Your task to perform on an android device: clear all cookies in the chrome app Image 0: 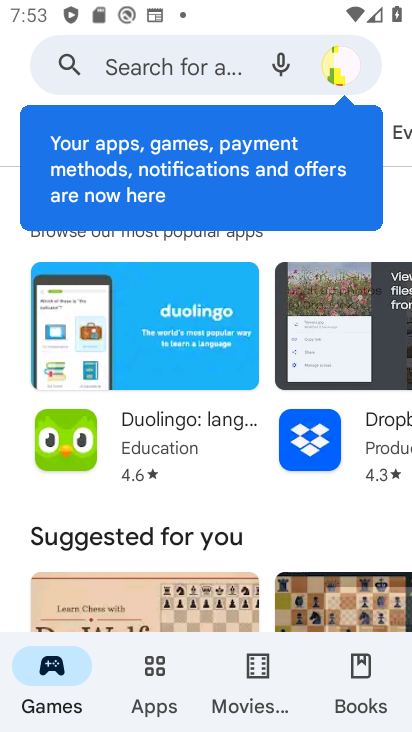
Step 0: press home button
Your task to perform on an android device: clear all cookies in the chrome app Image 1: 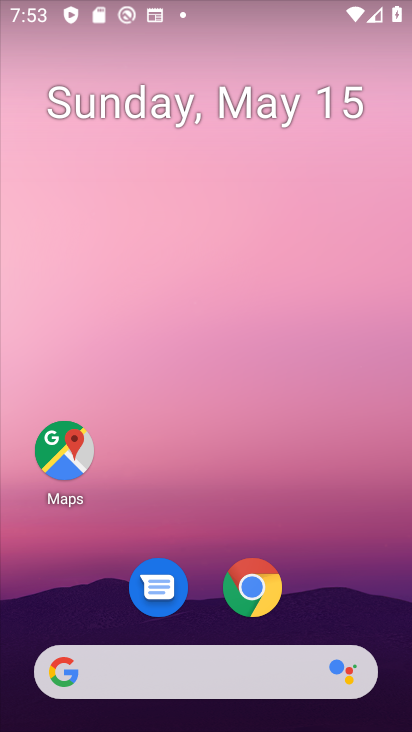
Step 1: click (254, 583)
Your task to perform on an android device: clear all cookies in the chrome app Image 2: 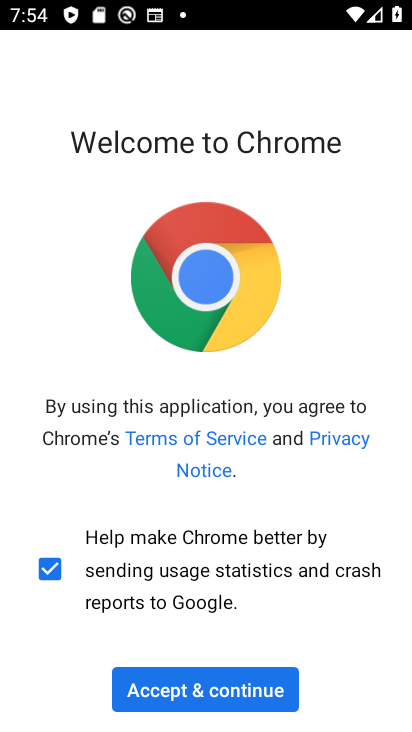
Step 2: click (167, 698)
Your task to perform on an android device: clear all cookies in the chrome app Image 3: 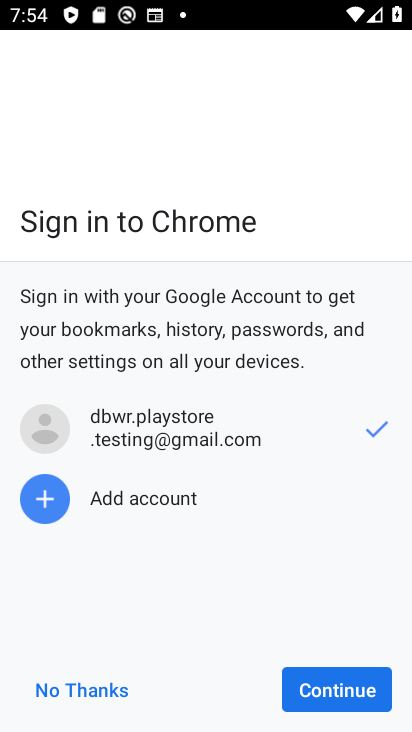
Step 3: click (352, 681)
Your task to perform on an android device: clear all cookies in the chrome app Image 4: 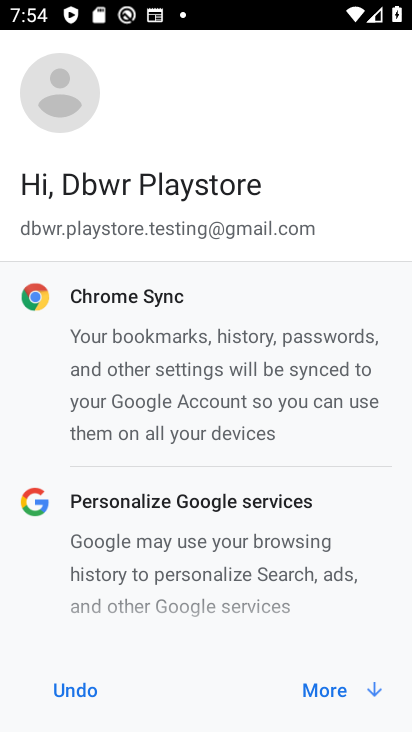
Step 4: click (312, 678)
Your task to perform on an android device: clear all cookies in the chrome app Image 5: 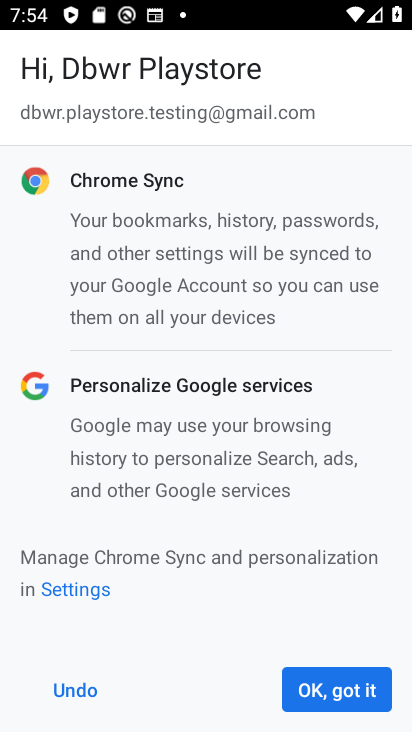
Step 5: click (322, 675)
Your task to perform on an android device: clear all cookies in the chrome app Image 6: 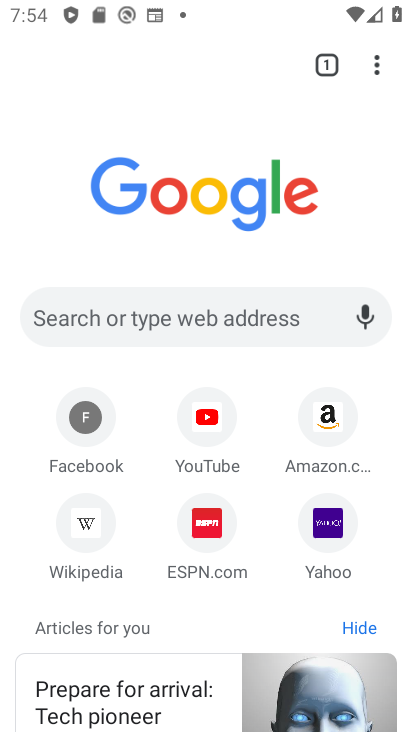
Step 6: click (378, 63)
Your task to perform on an android device: clear all cookies in the chrome app Image 7: 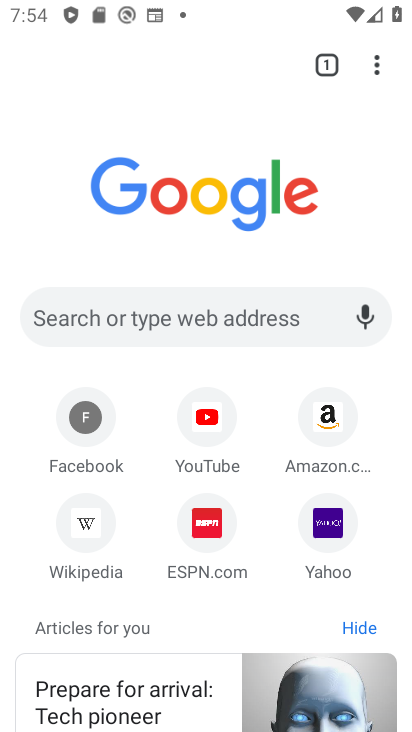
Step 7: click (377, 62)
Your task to perform on an android device: clear all cookies in the chrome app Image 8: 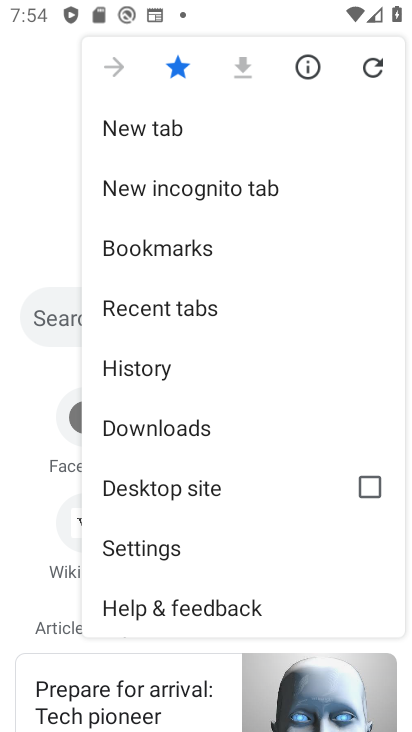
Step 8: click (167, 366)
Your task to perform on an android device: clear all cookies in the chrome app Image 9: 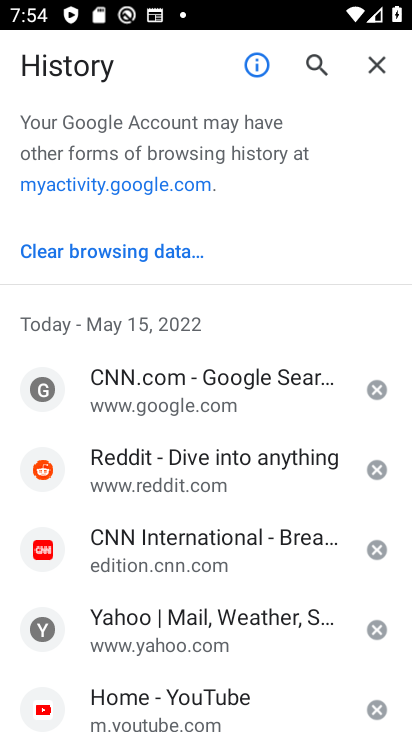
Step 9: click (130, 250)
Your task to perform on an android device: clear all cookies in the chrome app Image 10: 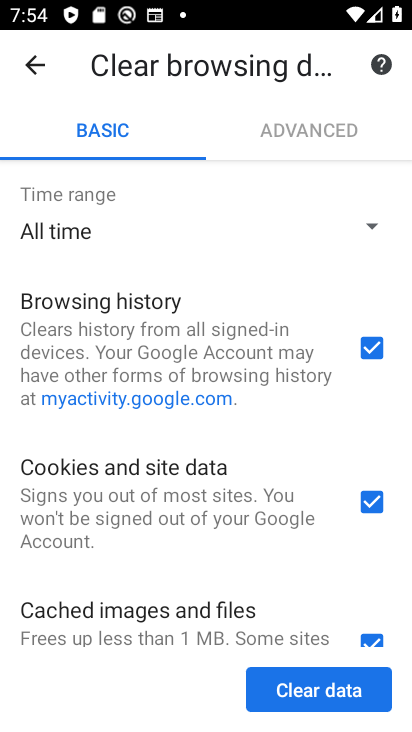
Step 10: click (375, 638)
Your task to perform on an android device: clear all cookies in the chrome app Image 11: 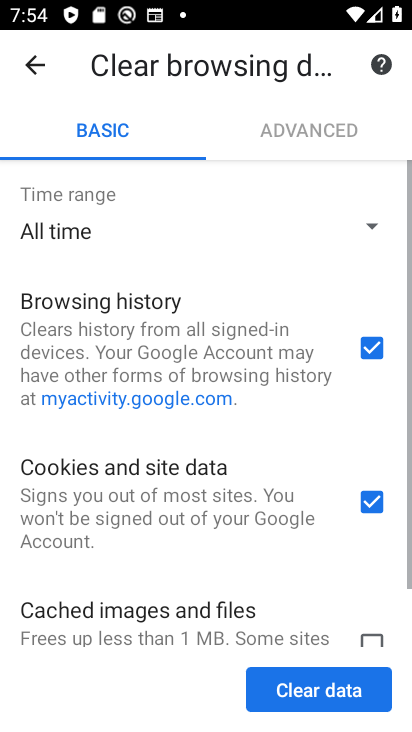
Step 11: click (374, 347)
Your task to perform on an android device: clear all cookies in the chrome app Image 12: 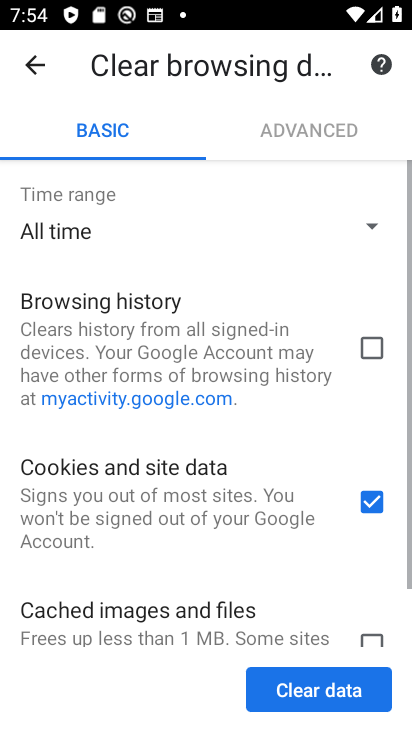
Step 12: click (304, 688)
Your task to perform on an android device: clear all cookies in the chrome app Image 13: 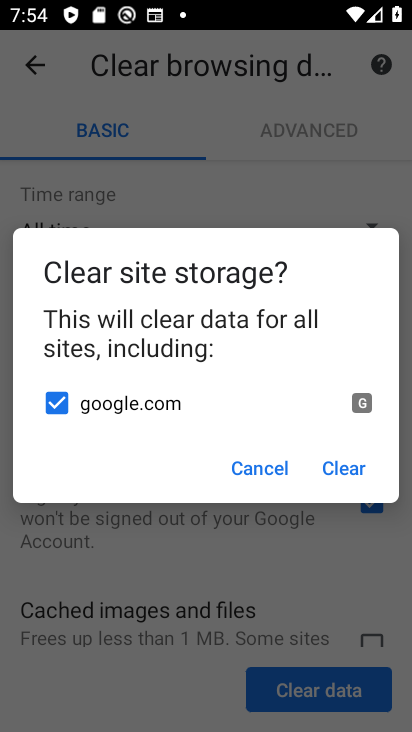
Step 13: click (343, 460)
Your task to perform on an android device: clear all cookies in the chrome app Image 14: 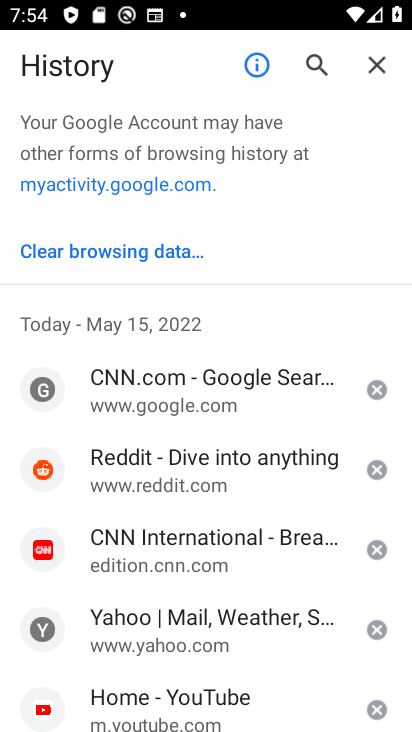
Step 14: task complete